Your task to perform on an android device: Open calendar and show me the fourth week of next month Image 0: 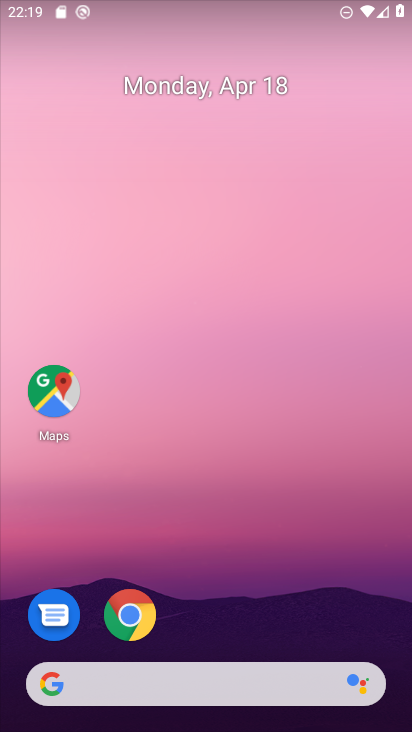
Step 0: drag from (310, 643) to (345, 131)
Your task to perform on an android device: Open calendar and show me the fourth week of next month Image 1: 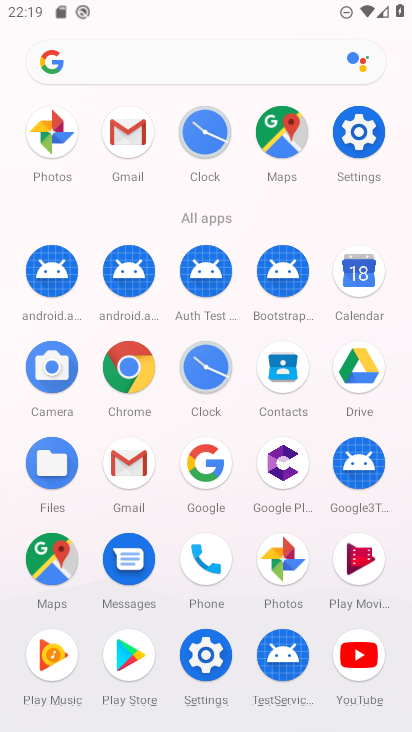
Step 1: click (366, 280)
Your task to perform on an android device: Open calendar and show me the fourth week of next month Image 2: 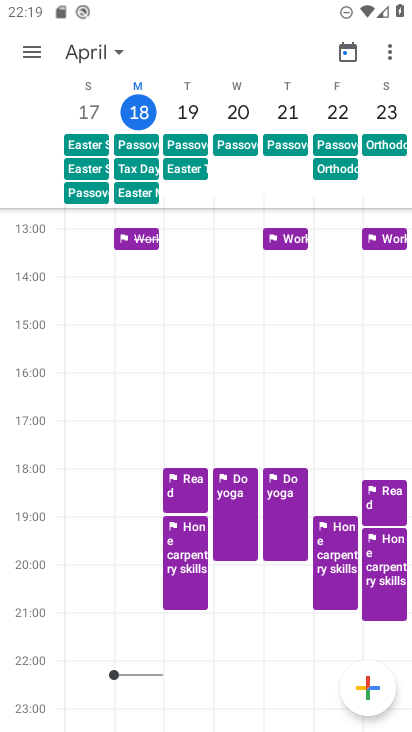
Step 2: click (123, 51)
Your task to perform on an android device: Open calendar and show me the fourth week of next month Image 3: 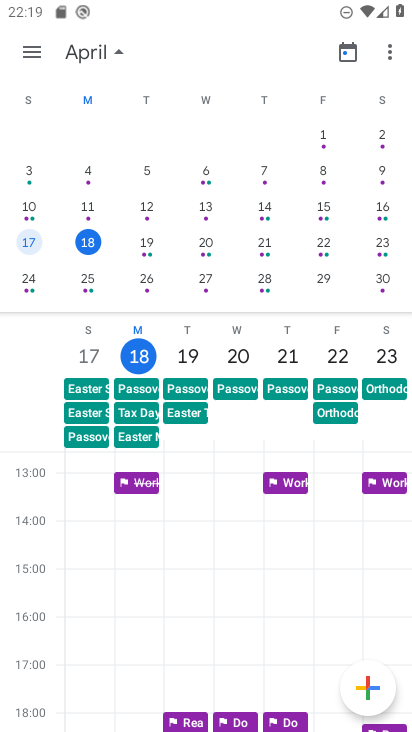
Step 3: click (29, 53)
Your task to perform on an android device: Open calendar and show me the fourth week of next month Image 4: 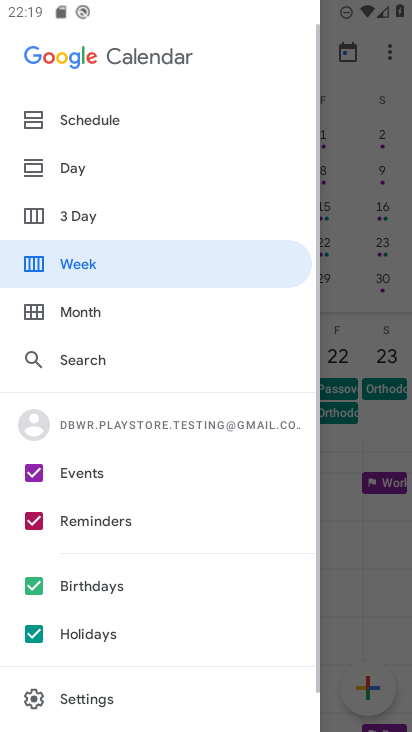
Step 4: click (55, 311)
Your task to perform on an android device: Open calendar and show me the fourth week of next month Image 5: 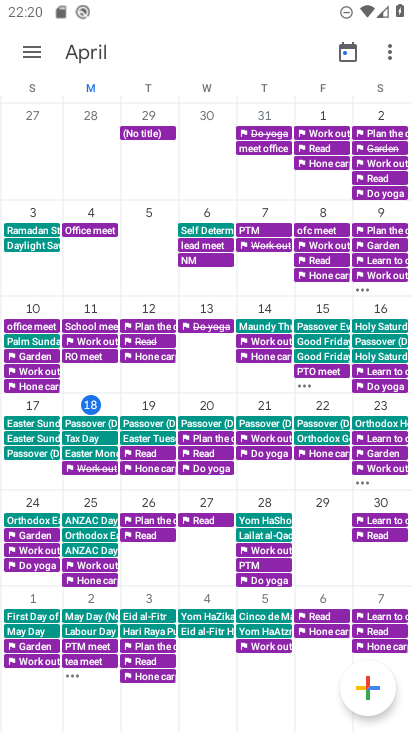
Step 5: drag from (360, 315) to (5, 338)
Your task to perform on an android device: Open calendar and show me the fourth week of next month Image 6: 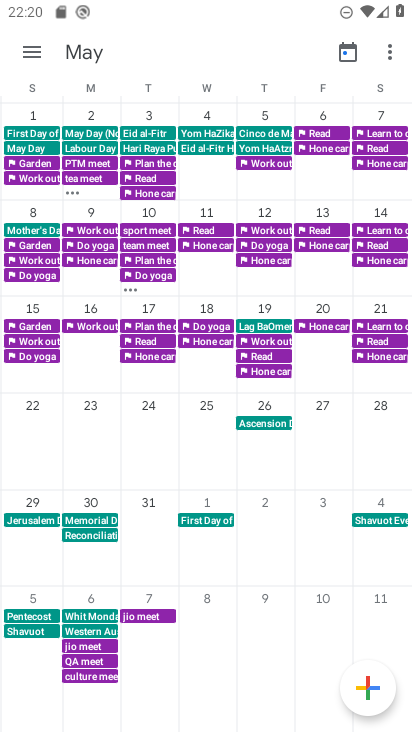
Step 6: click (25, 51)
Your task to perform on an android device: Open calendar and show me the fourth week of next month Image 7: 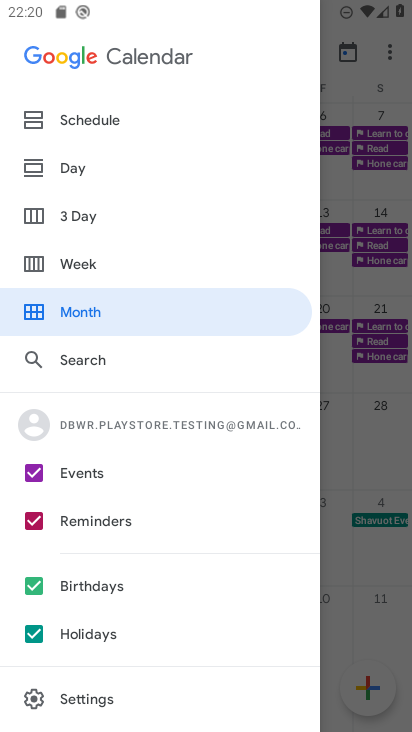
Step 7: click (74, 261)
Your task to perform on an android device: Open calendar and show me the fourth week of next month Image 8: 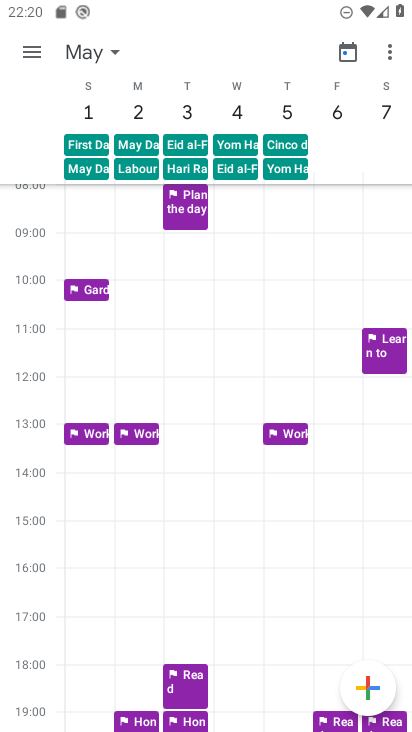
Step 8: task complete